Your task to perform on an android device: empty trash in google photos Image 0: 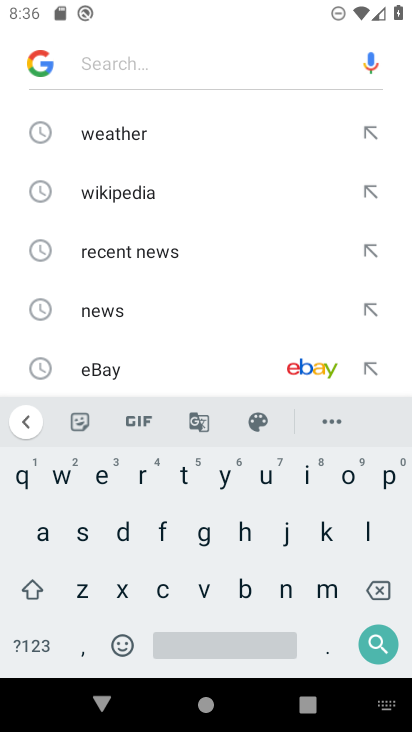
Step 0: press home button
Your task to perform on an android device: empty trash in google photos Image 1: 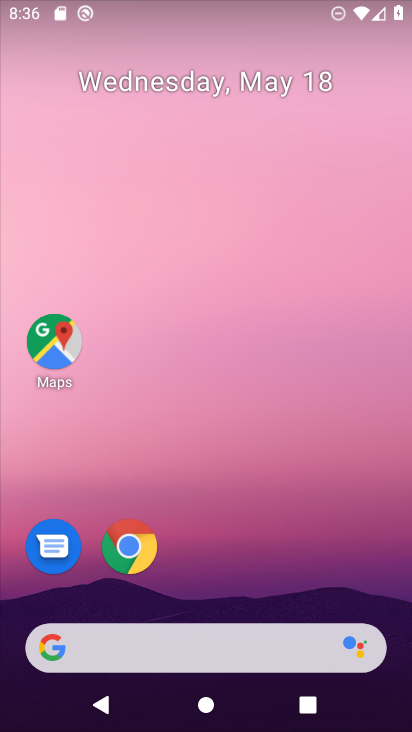
Step 1: drag from (258, 680) to (302, 191)
Your task to perform on an android device: empty trash in google photos Image 2: 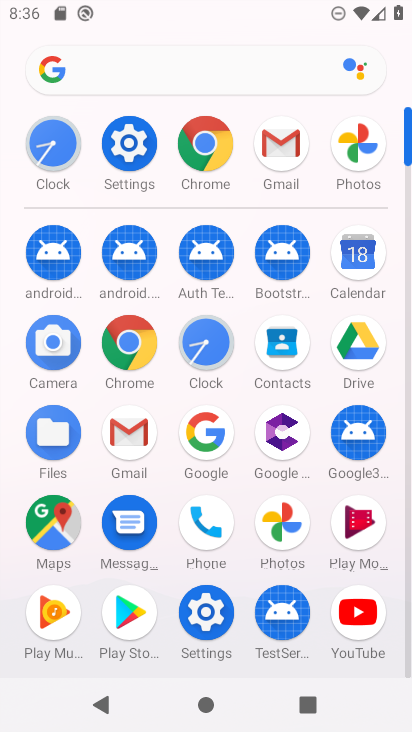
Step 2: click (361, 142)
Your task to perform on an android device: empty trash in google photos Image 3: 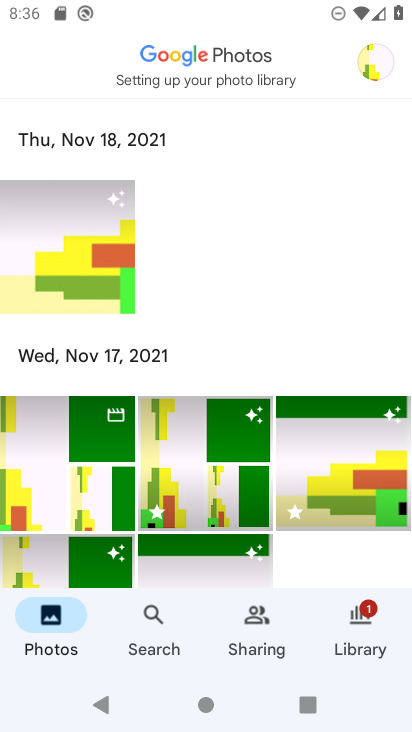
Step 3: click (363, 56)
Your task to perform on an android device: empty trash in google photos Image 4: 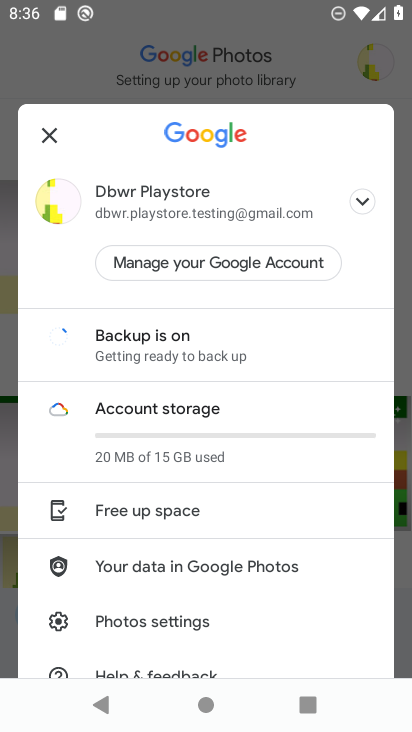
Step 4: click (153, 626)
Your task to perform on an android device: empty trash in google photos Image 5: 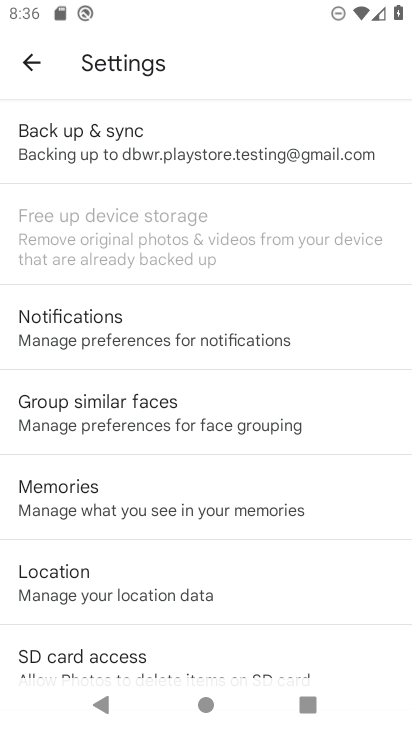
Step 5: click (32, 69)
Your task to perform on an android device: empty trash in google photos Image 6: 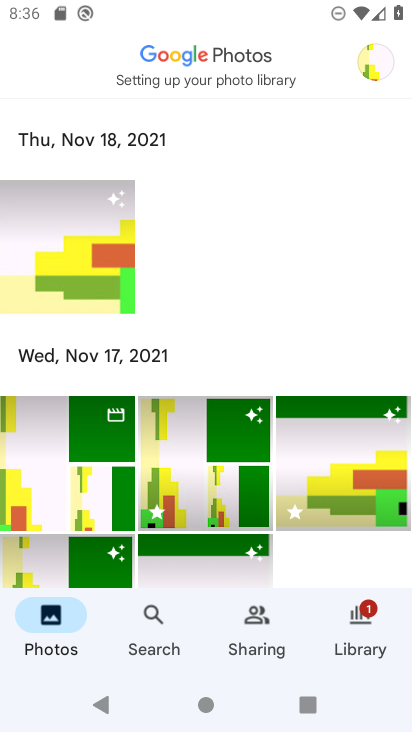
Step 6: click (143, 619)
Your task to perform on an android device: empty trash in google photos Image 7: 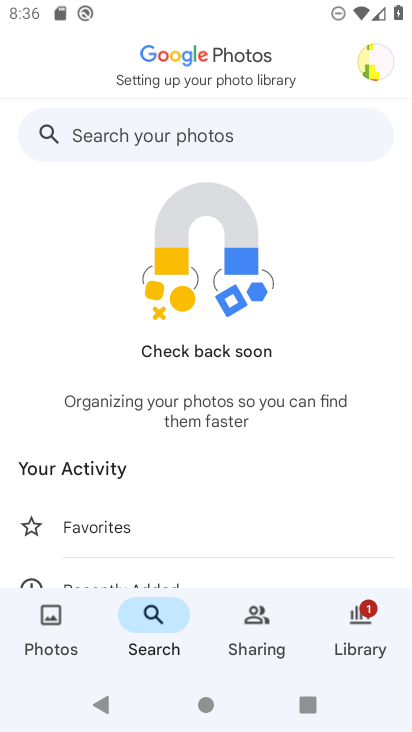
Step 7: click (145, 123)
Your task to perform on an android device: empty trash in google photos Image 8: 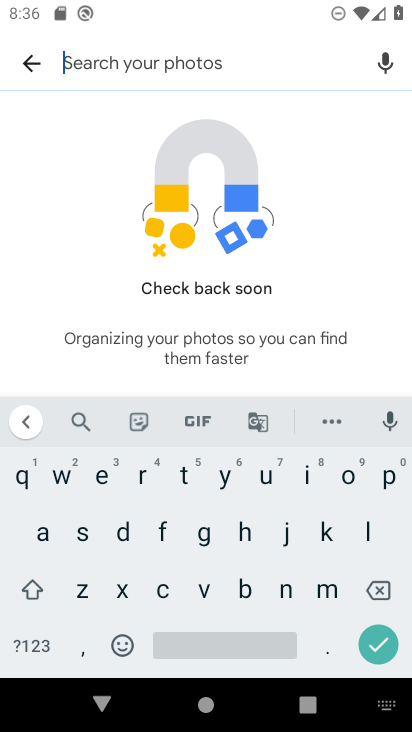
Step 8: click (182, 478)
Your task to perform on an android device: empty trash in google photos Image 9: 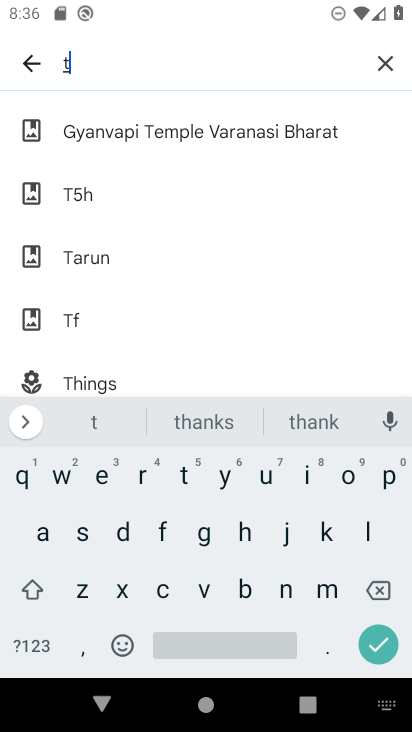
Step 9: click (138, 470)
Your task to perform on an android device: empty trash in google photos Image 10: 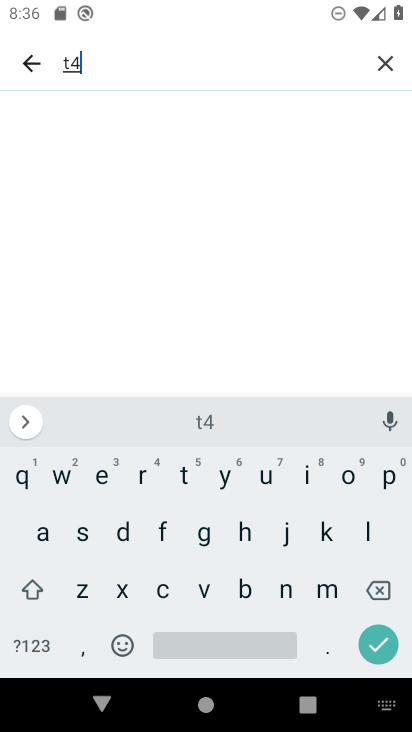
Step 10: click (370, 588)
Your task to perform on an android device: empty trash in google photos Image 11: 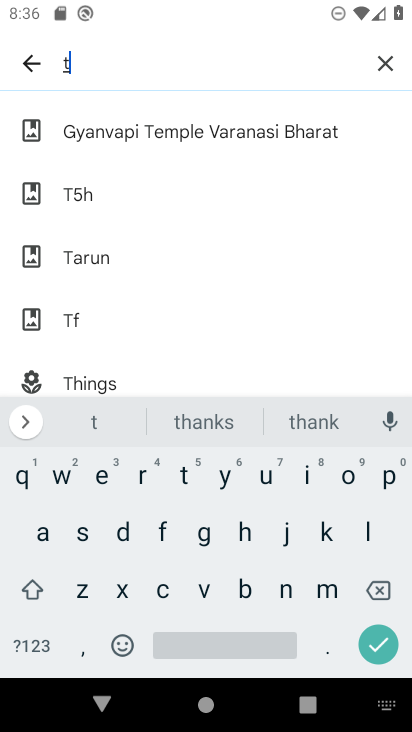
Step 11: click (136, 478)
Your task to perform on an android device: empty trash in google photos Image 12: 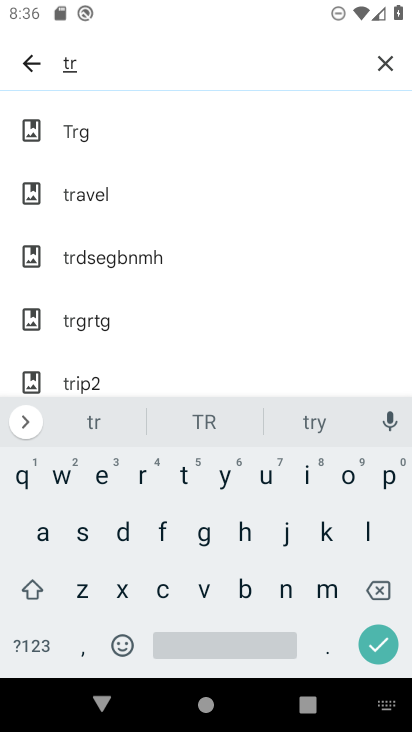
Step 12: click (41, 538)
Your task to perform on an android device: empty trash in google photos Image 13: 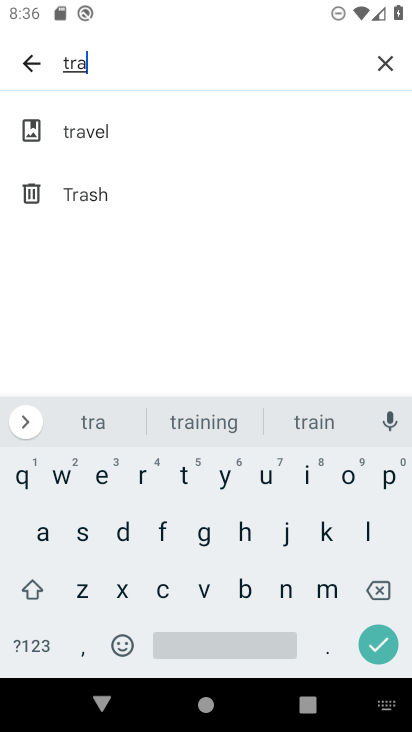
Step 13: click (93, 193)
Your task to perform on an android device: empty trash in google photos Image 14: 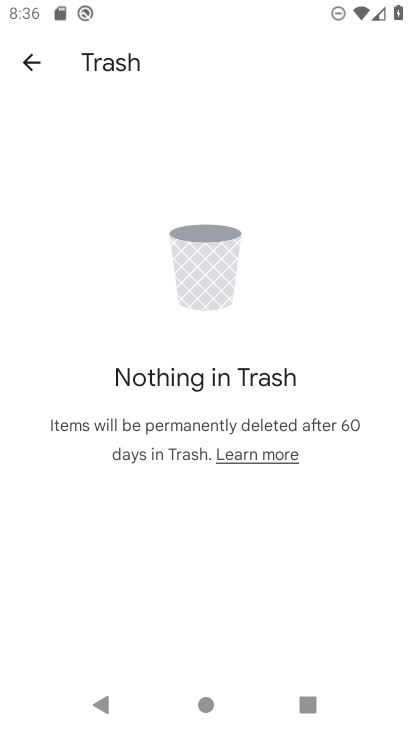
Step 14: task complete